Your task to perform on an android device: Search for sushi restaurants on Maps Image 0: 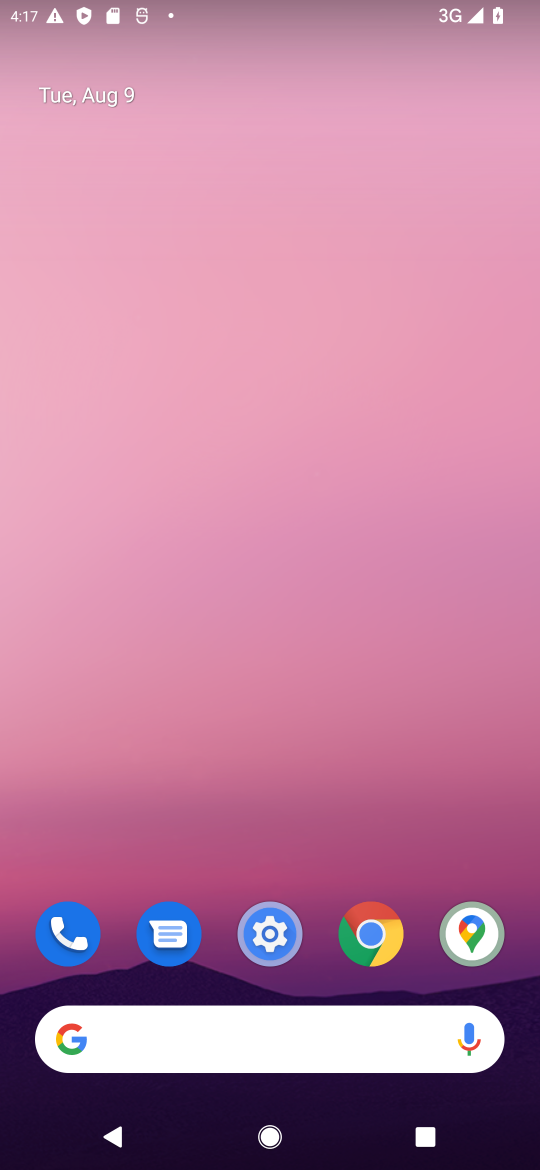
Step 0: click (484, 940)
Your task to perform on an android device: Search for sushi restaurants on Maps Image 1: 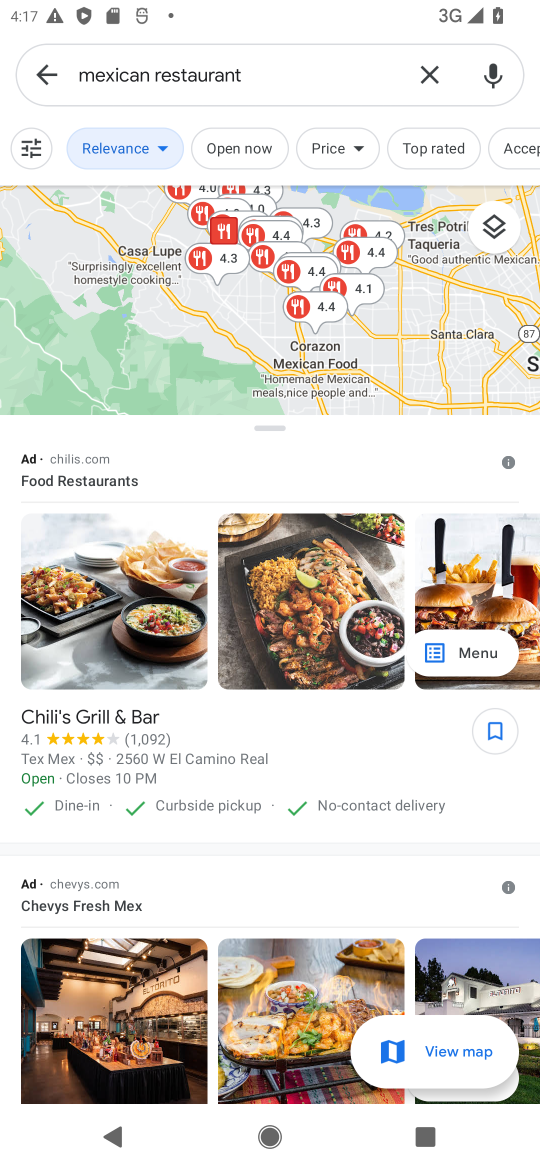
Step 1: click (436, 62)
Your task to perform on an android device: Search for sushi restaurants on Maps Image 2: 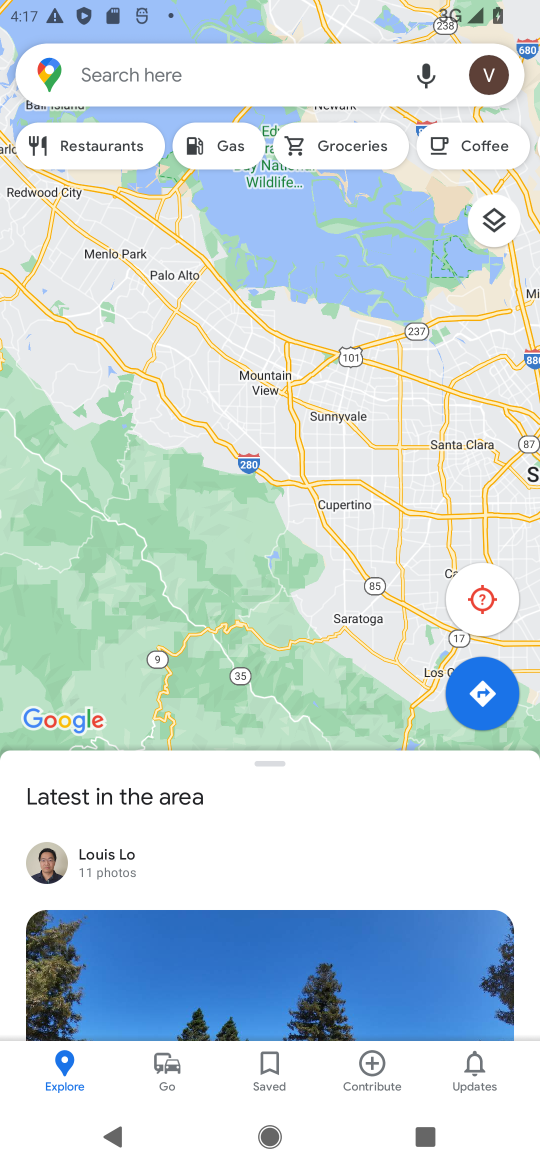
Step 2: click (256, 61)
Your task to perform on an android device: Search for sushi restaurants on Maps Image 3: 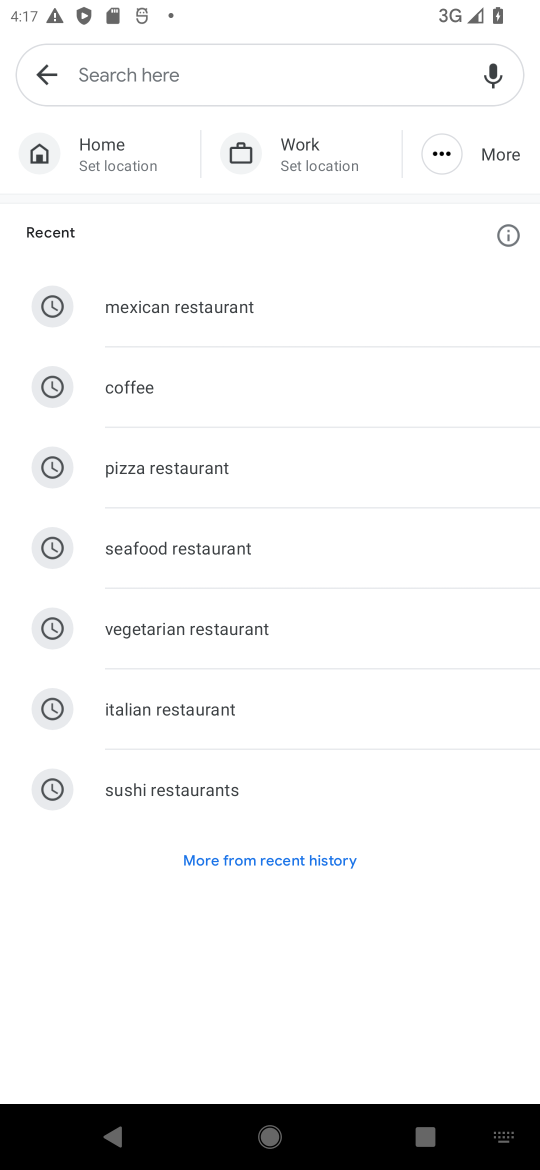
Step 3: click (152, 783)
Your task to perform on an android device: Search for sushi restaurants on Maps Image 4: 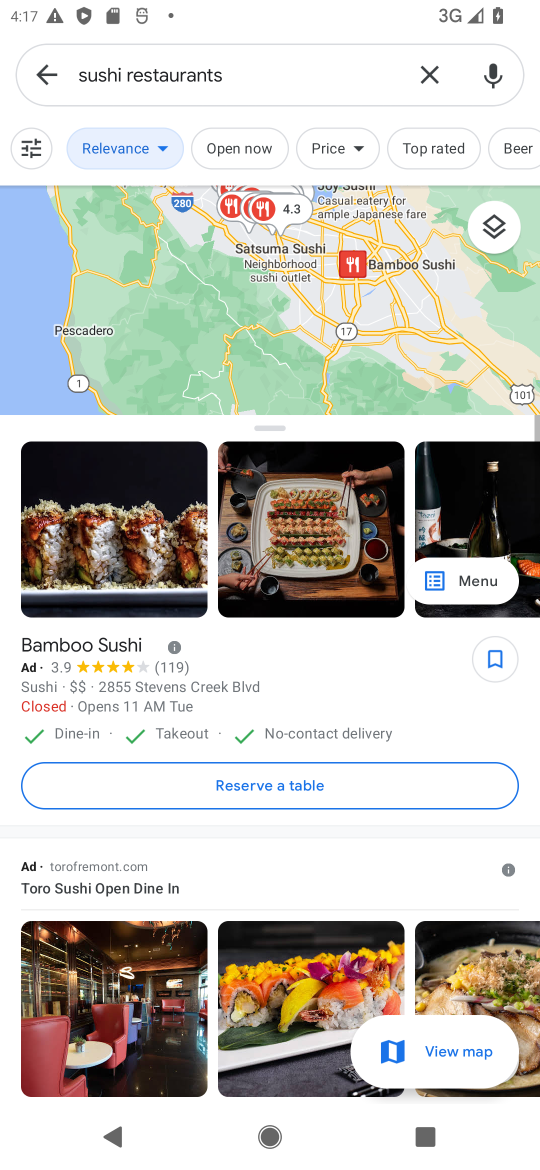
Step 4: task complete